Your task to perform on an android device: see tabs open on other devices in the chrome app Image 0: 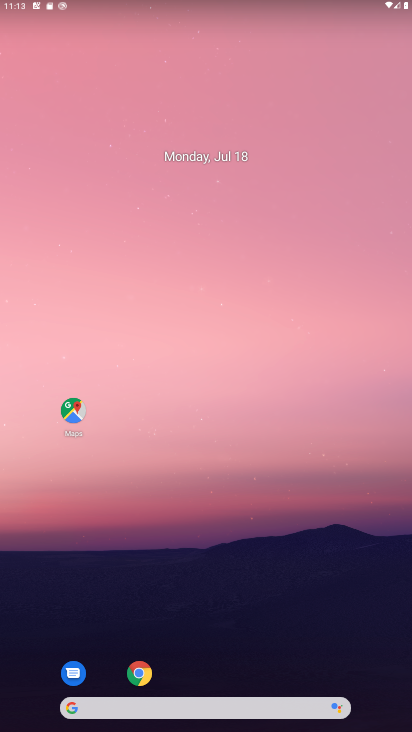
Step 0: click (140, 675)
Your task to perform on an android device: see tabs open on other devices in the chrome app Image 1: 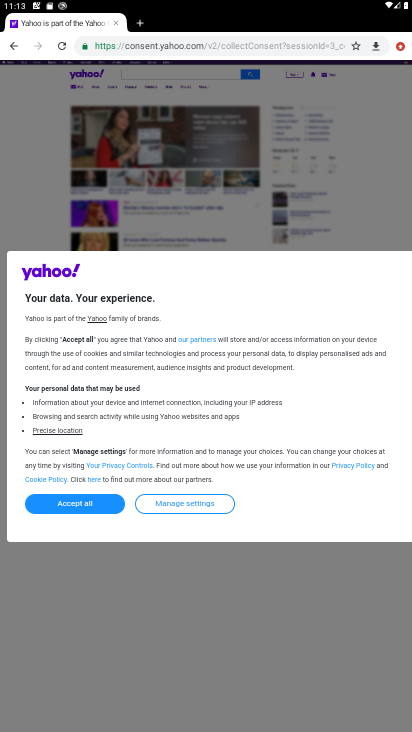
Step 1: click (400, 46)
Your task to perform on an android device: see tabs open on other devices in the chrome app Image 2: 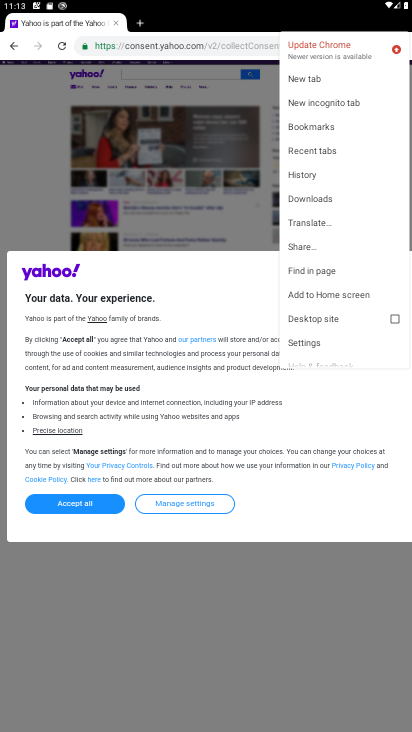
Step 2: click (340, 147)
Your task to perform on an android device: see tabs open on other devices in the chrome app Image 3: 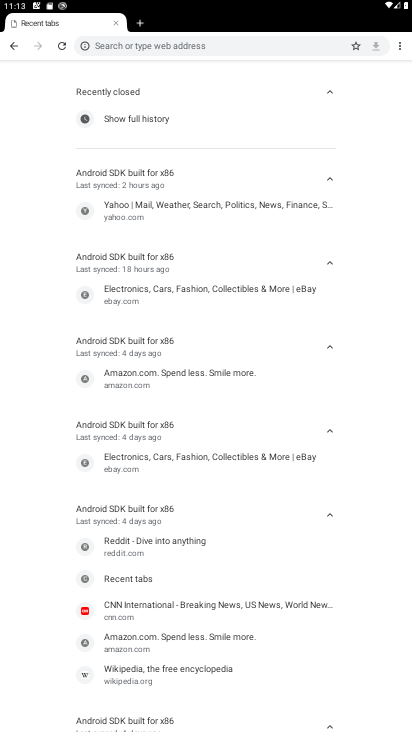
Step 3: task complete